Your task to perform on an android device: Go to CNN.com Image 0: 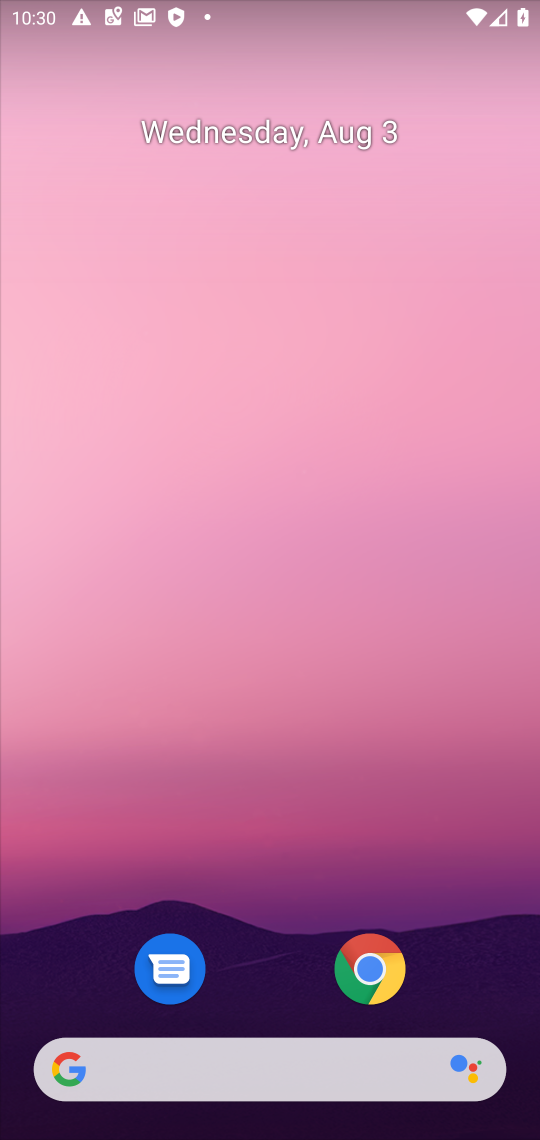
Step 0: click (345, 956)
Your task to perform on an android device: Go to CNN.com Image 1: 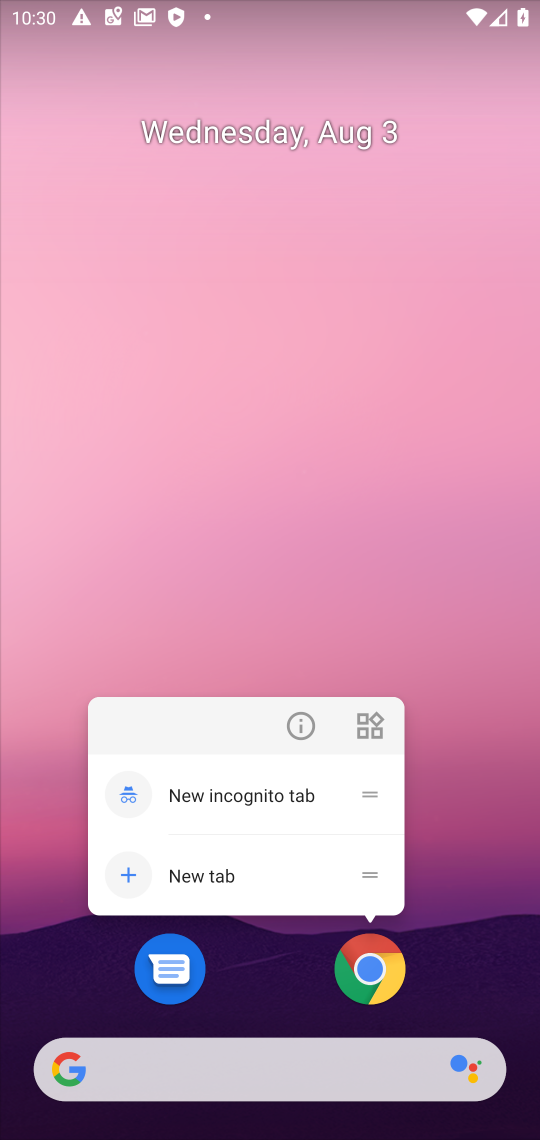
Step 1: click (371, 994)
Your task to perform on an android device: Go to CNN.com Image 2: 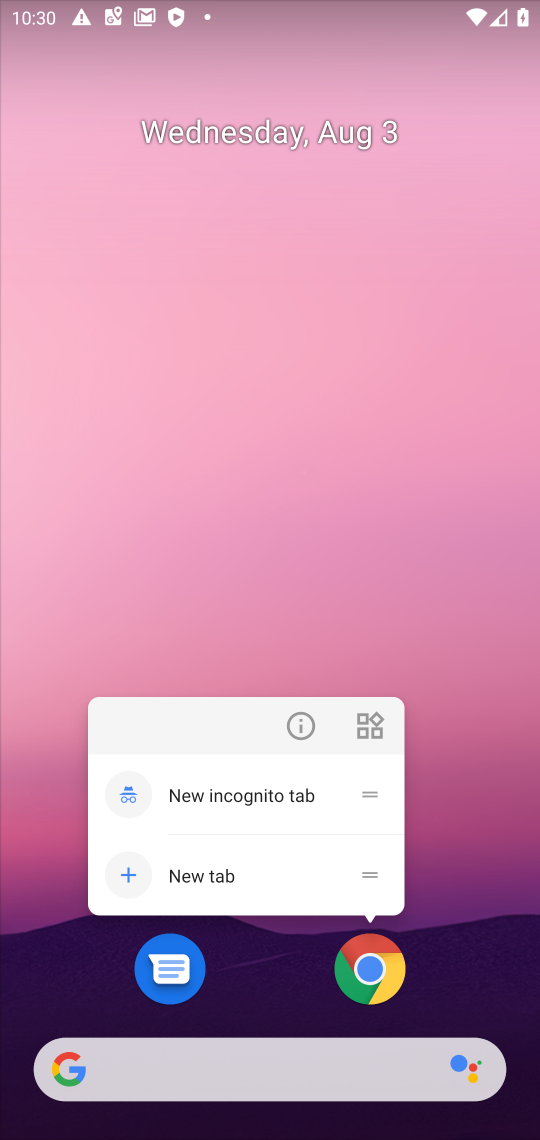
Step 2: click (355, 1000)
Your task to perform on an android device: Go to CNN.com Image 3: 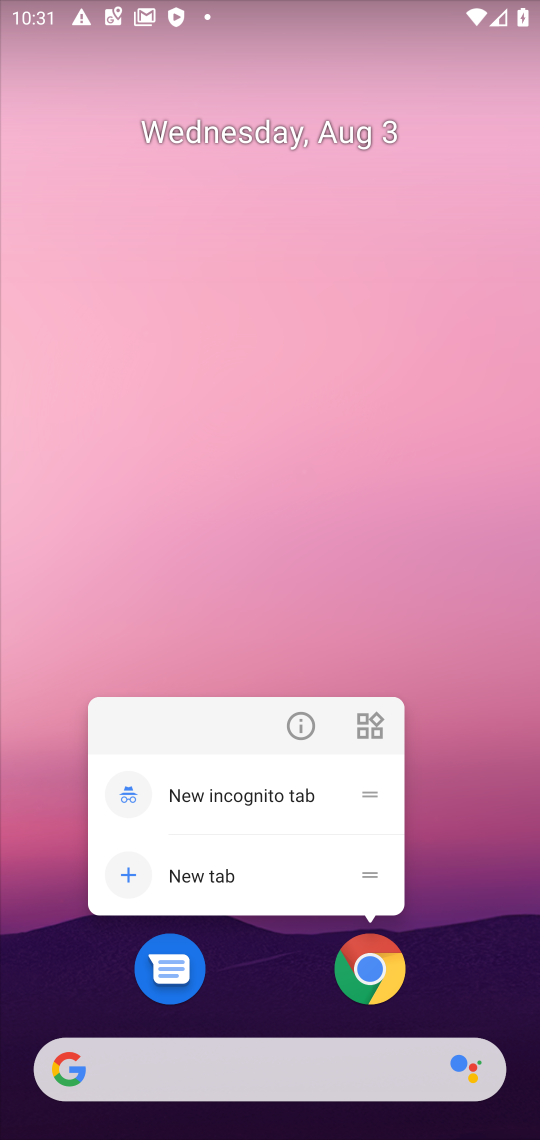
Step 3: click (385, 1003)
Your task to perform on an android device: Go to CNN.com Image 4: 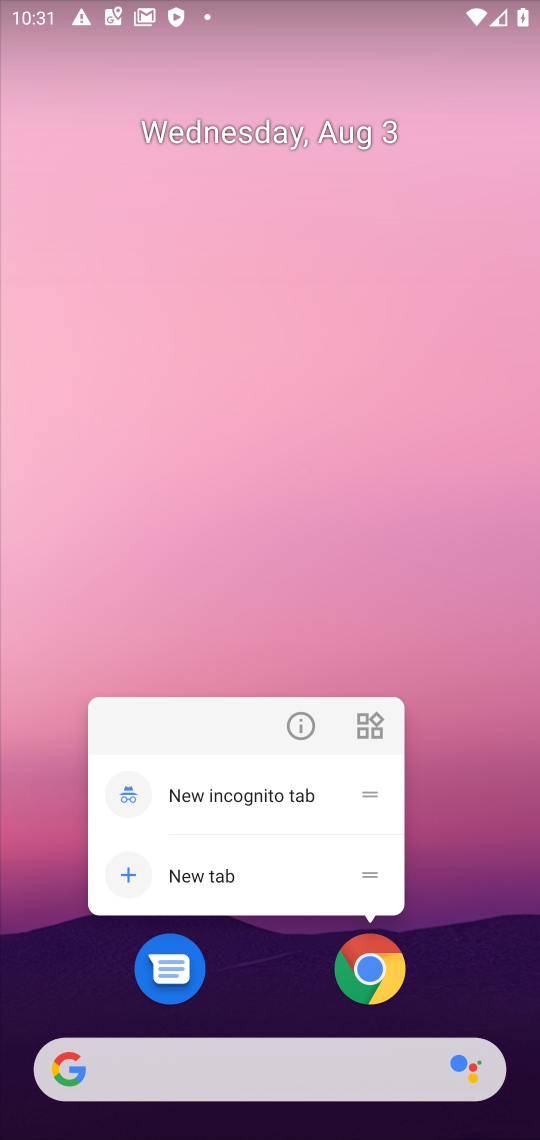
Step 4: click (356, 955)
Your task to perform on an android device: Go to CNN.com Image 5: 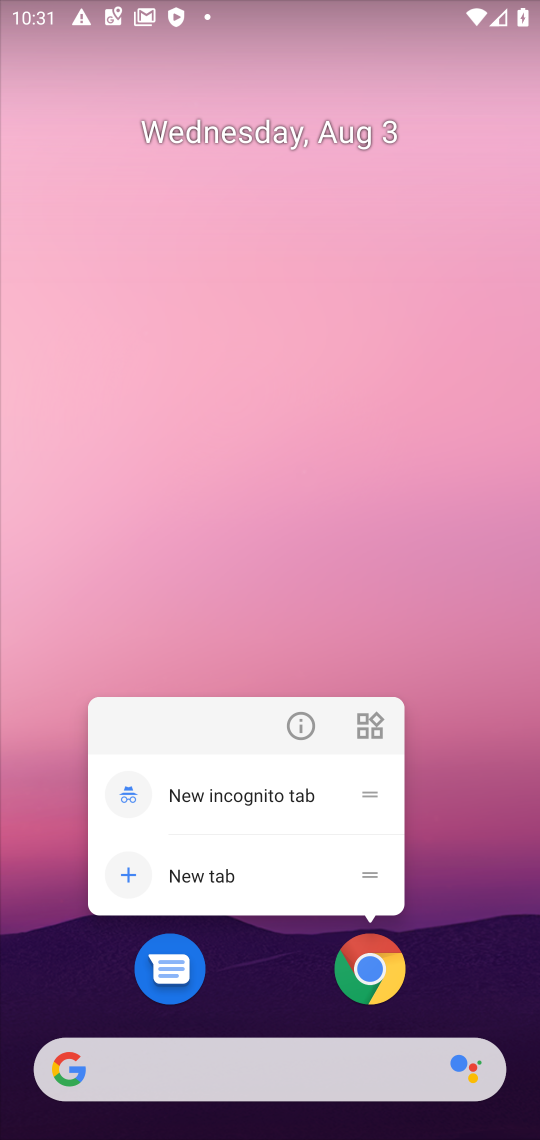
Step 5: click (373, 975)
Your task to perform on an android device: Go to CNN.com Image 6: 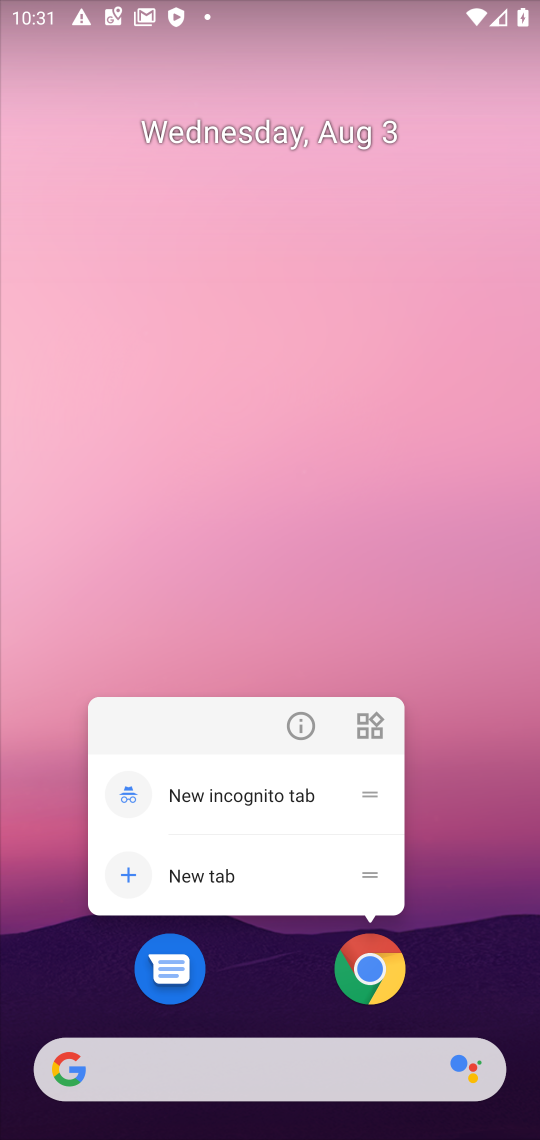
Step 6: click (377, 957)
Your task to perform on an android device: Go to CNN.com Image 7: 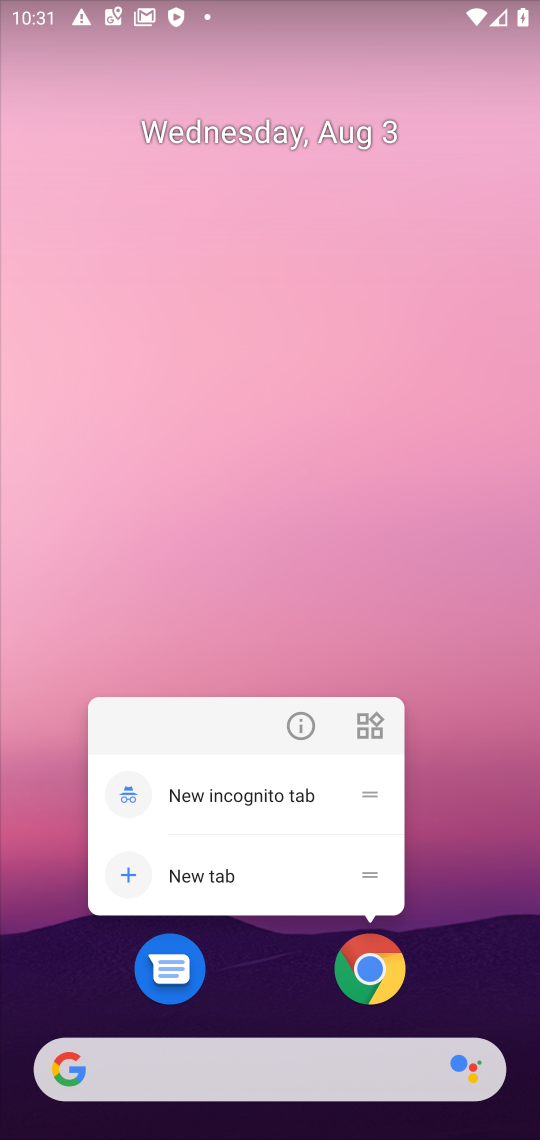
Step 7: drag from (296, 1006) to (174, 47)
Your task to perform on an android device: Go to CNN.com Image 8: 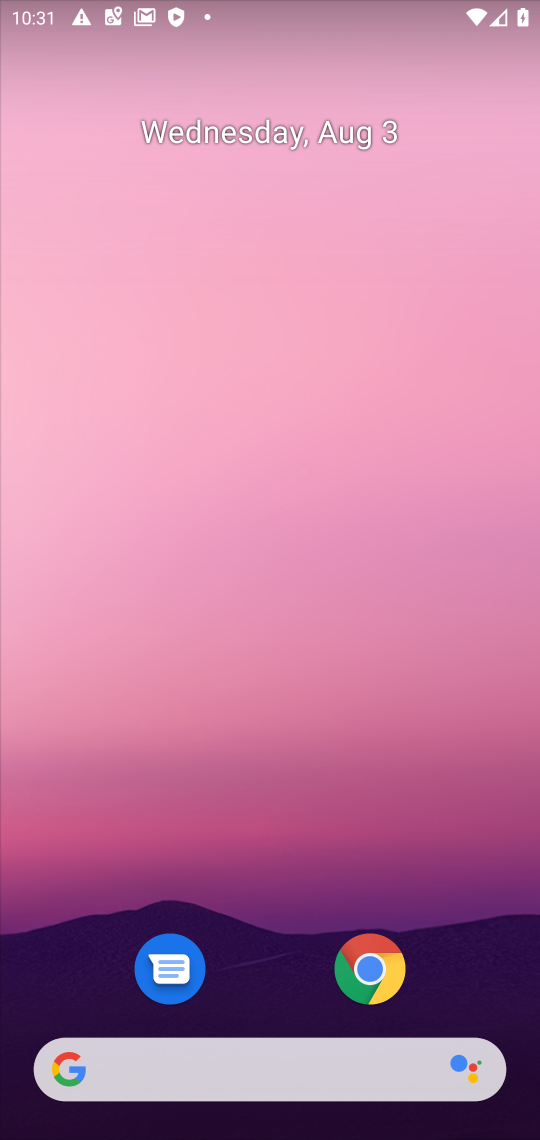
Step 8: drag from (306, 1004) to (0, 588)
Your task to perform on an android device: Go to CNN.com Image 9: 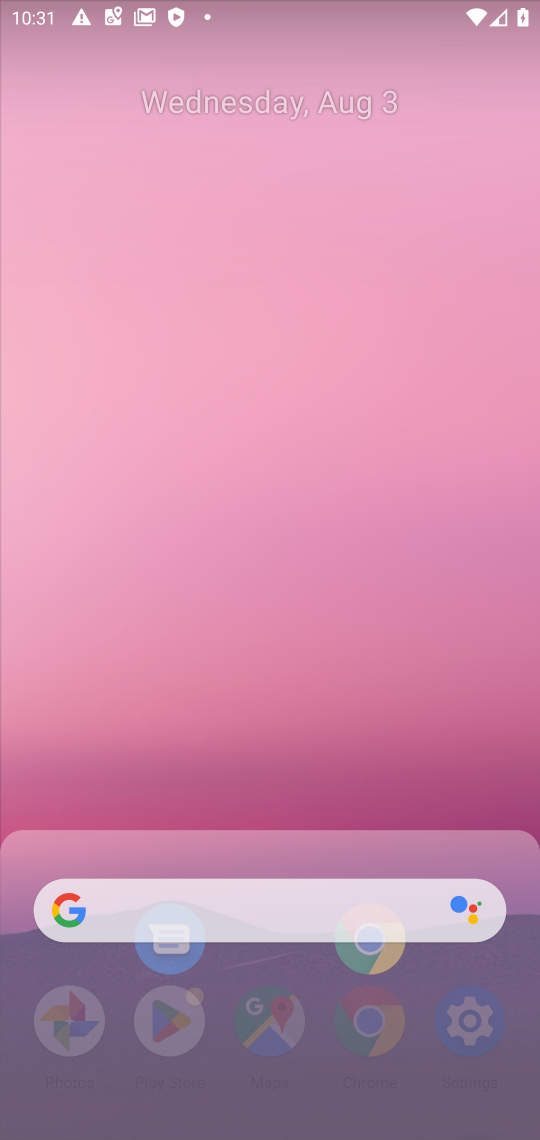
Step 9: click (183, 595)
Your task to perform on an android device: Go to CNN.com Image 10: 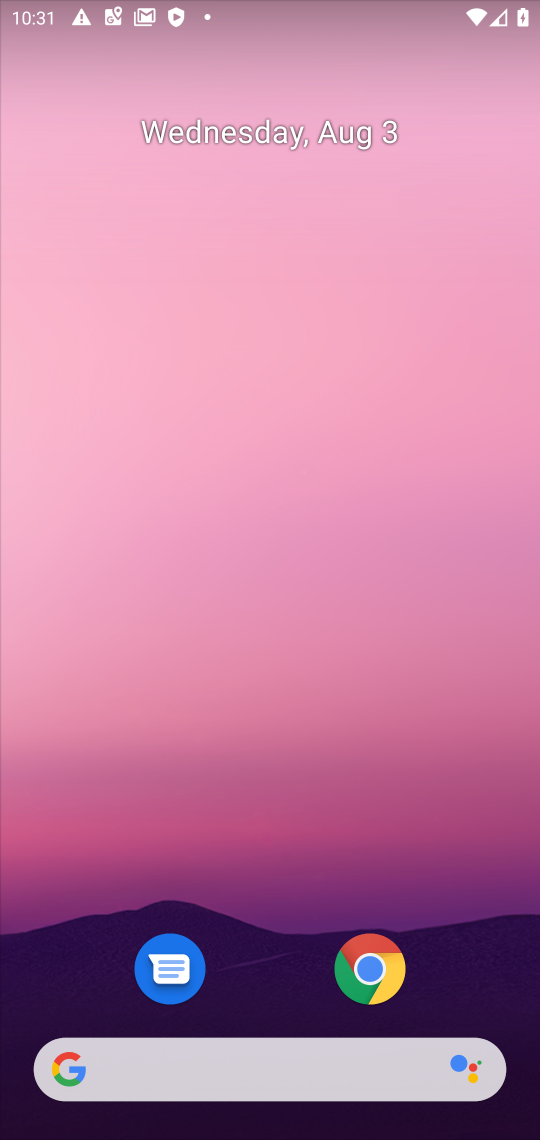
Step 10: drag from (362, 1045) to (294, 17)
Your task to perform on an android device: Go to CNN.com Image 11: 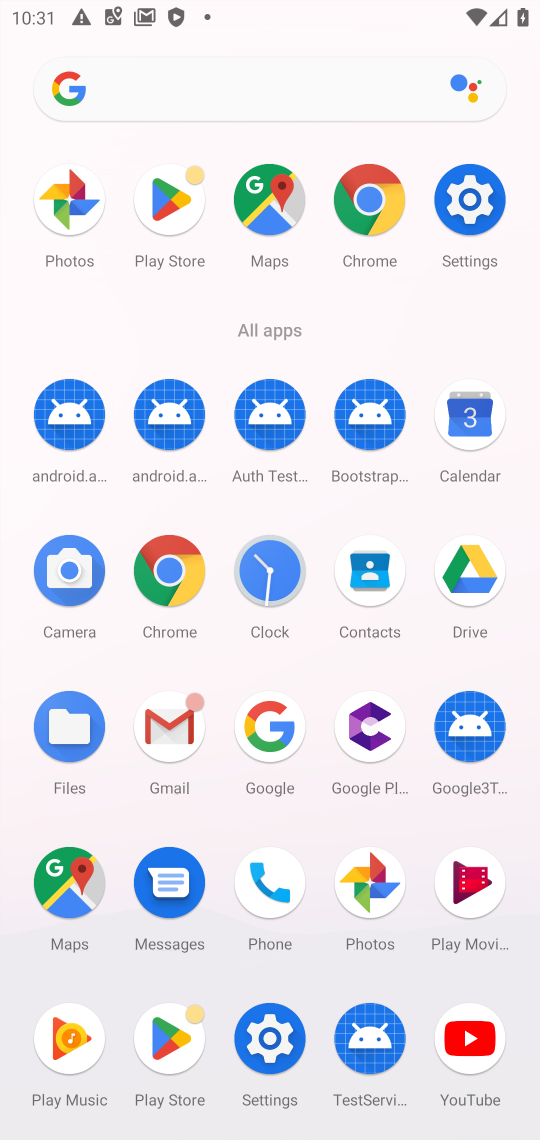
Step 11: click (150, 556)
Your task to perform on an android device: Go to CNN.com Image 12: 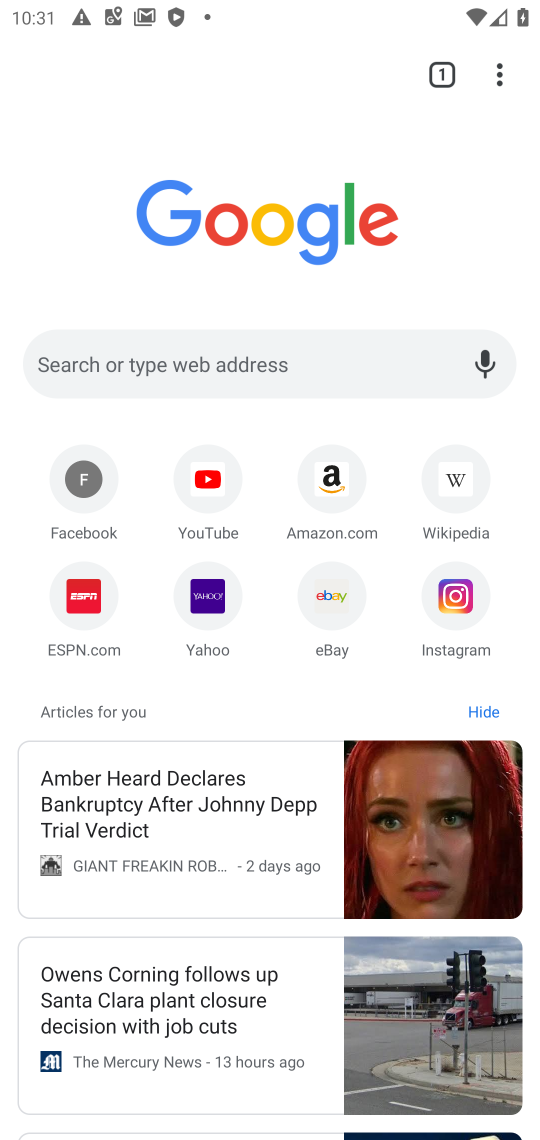
Step 12: click (285, 385)
Your task to perform on an android device: Go to CNN.com Image 13: 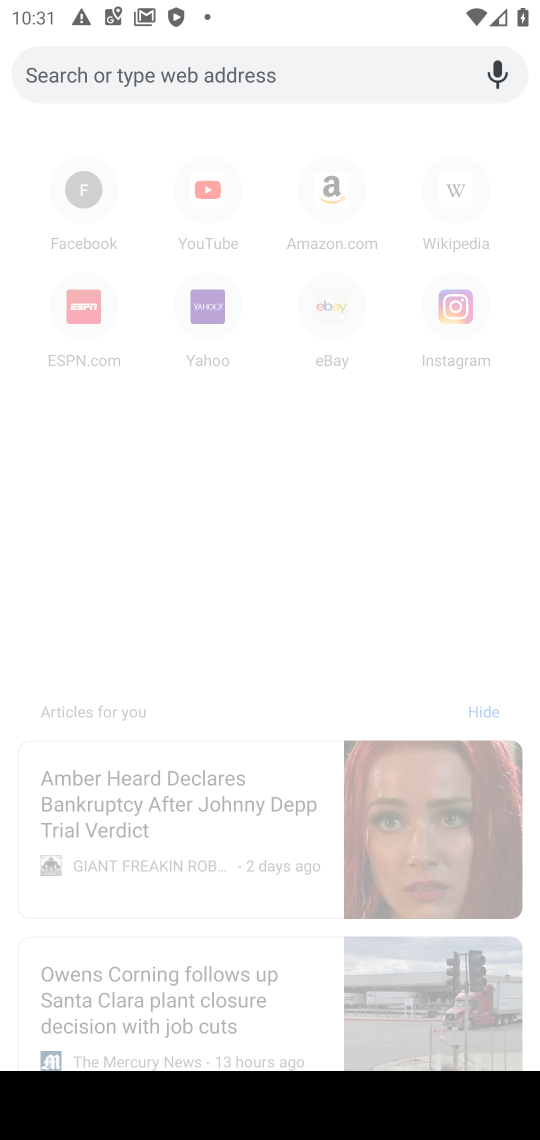
Step 13: type "CNN.com"
Your task to perform on an android device: Go to CNN.com Image 14: 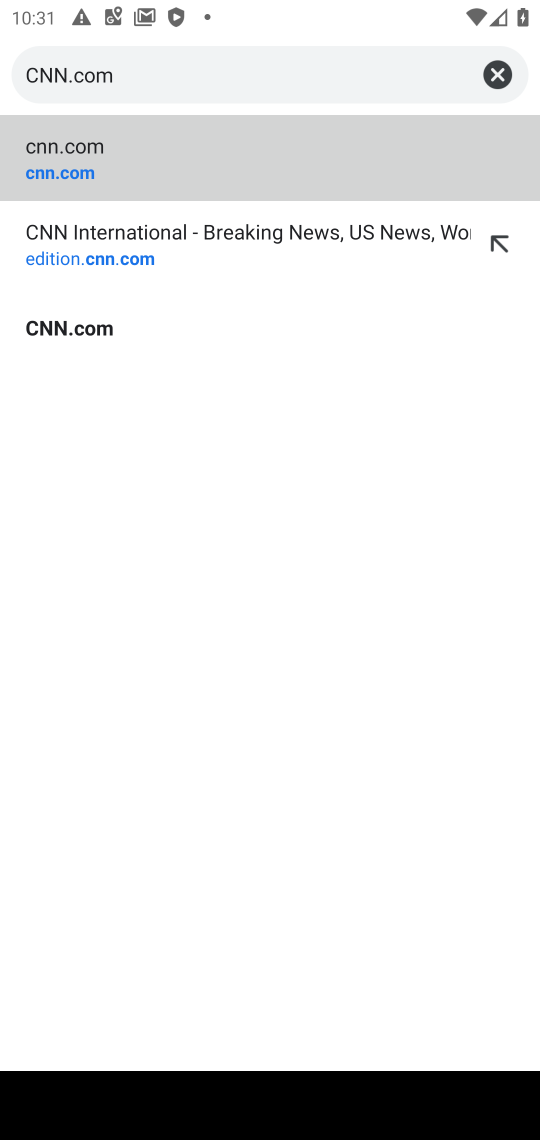
Step 14: click (95, 184)
Your task to perform on an android device: Go to CNN.com Image 15: 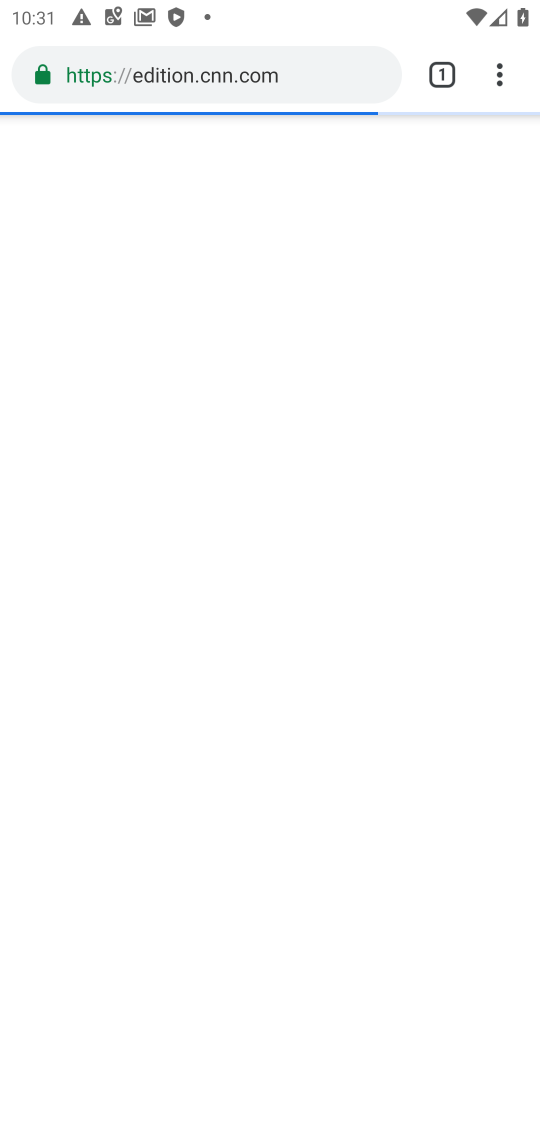
Step 15: task complete